Your task to perform on an android device: Go to Wikipedia Image 0: 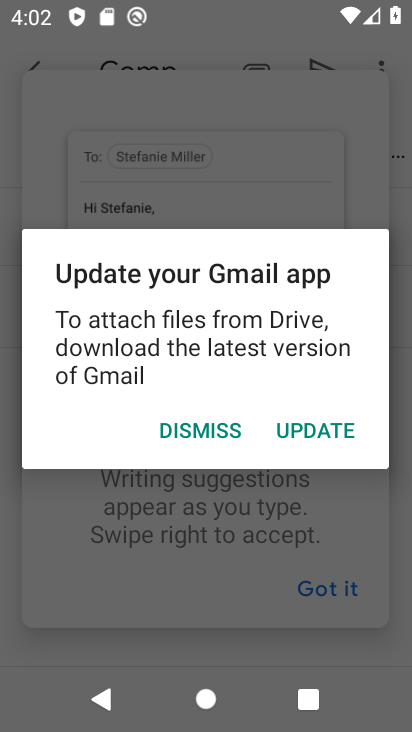
Step 0: press home button
Your task to perform on an android device: Go to Wikipedia Image 1: 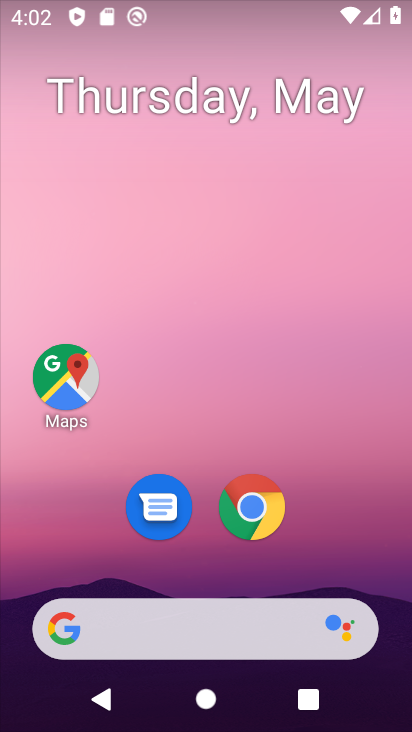
Step 1: click (260, 501)
Your task to perform on an android device: Go to Wikipedia Image 2: 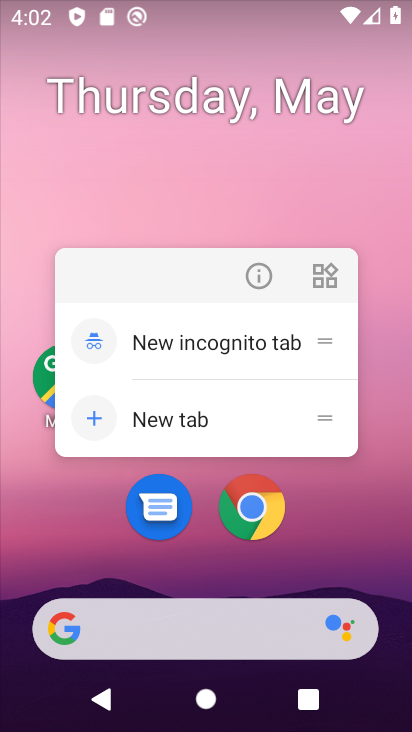
Step 2: click (248, 506)
Your task to perform on an android device: Go to Wikipedia Image 3: 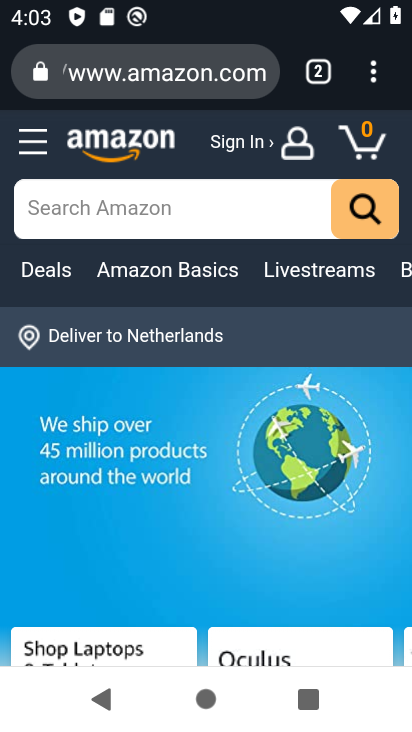
Step 3: click (176, 85)
Your task to perform on an android device: Go to Wikipedia Image 4: 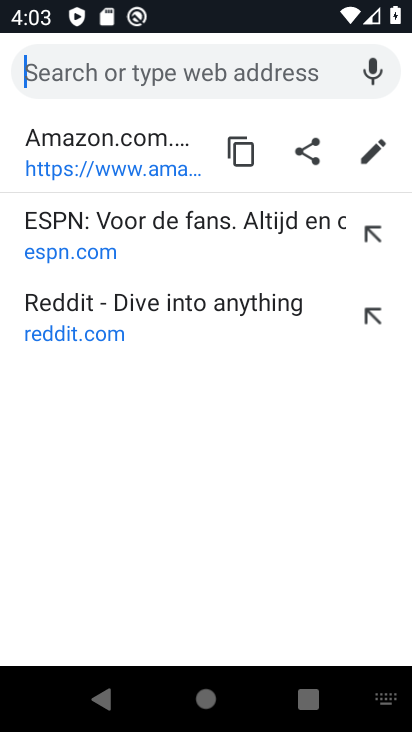
Step 4: type "wikipedia"
Your task to perform on an android device: Go to Wikipedia Image 5: 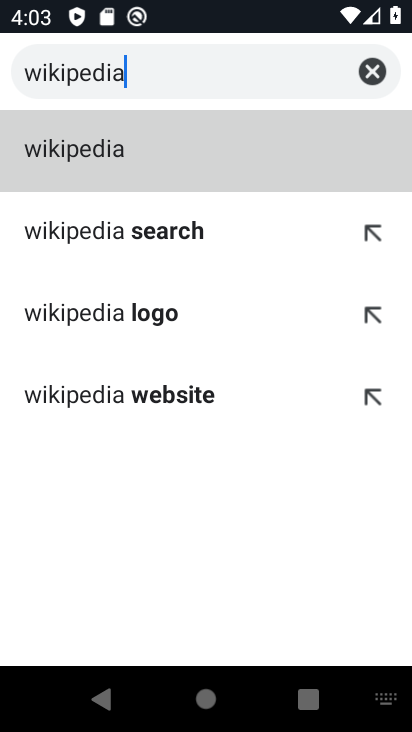
Step 5: click (64, 153)
Your task to perform on an android device: Go to Wikipedia Image 6: 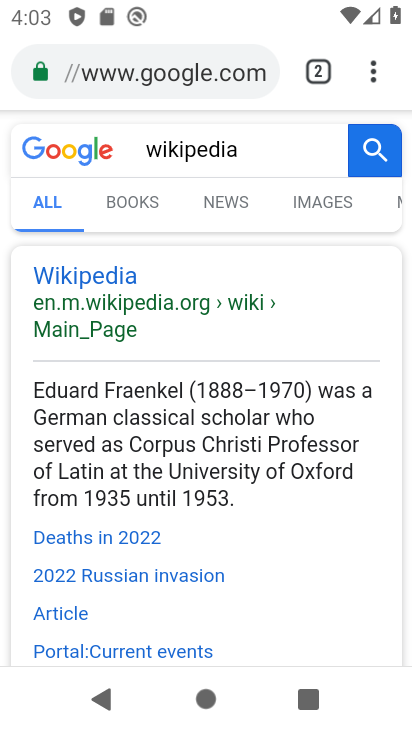
Step 6: click (82, 276)
Your task to perform on an android device: Go to Wikipedia Image 7: 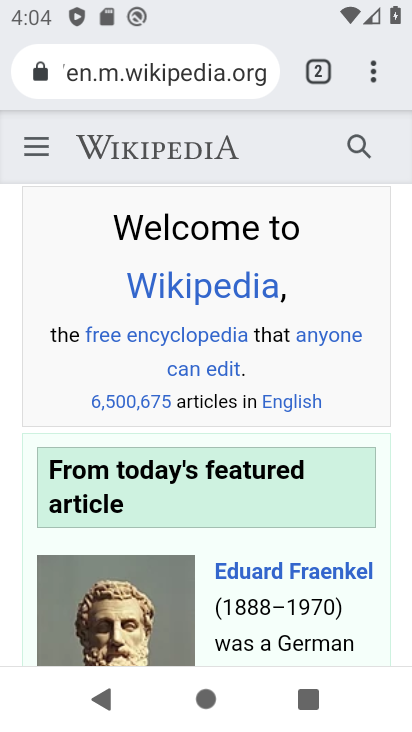
Step 7: task complete